Your task to perform on an android device: Open location settings Image 0: 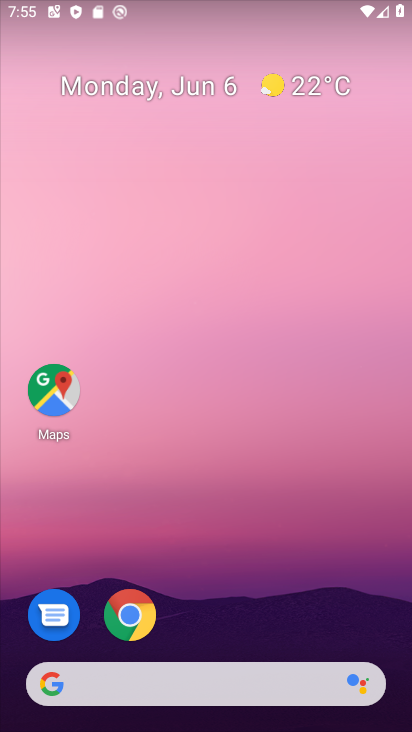
Step 0: drag from (377, 595) to (350, 133)
Your task to perform on an android device: Open location settings Image 1: 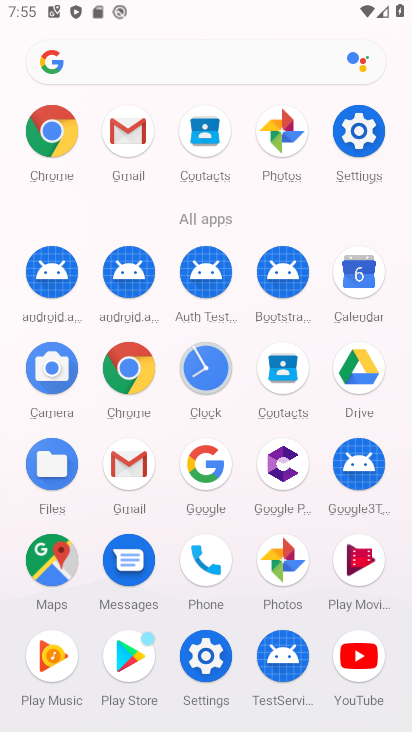
Step 1: click (355, 141)
Your task to perform on an android device: Open location settings Image 2: 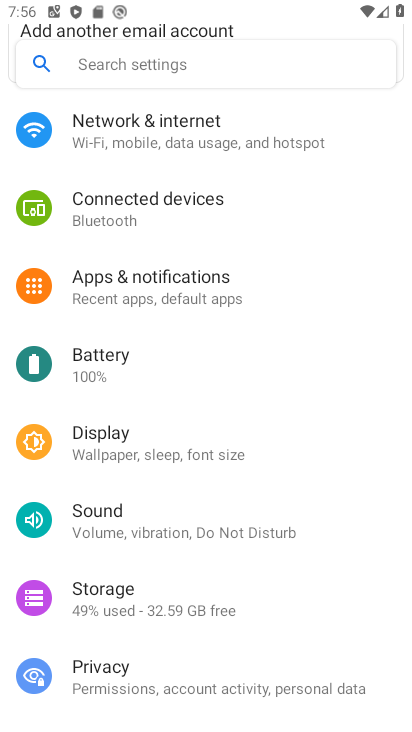
Step 2: drag from (177, 560) to (172, 213)
Your task to perform on an android device: Open location settings Image 3: 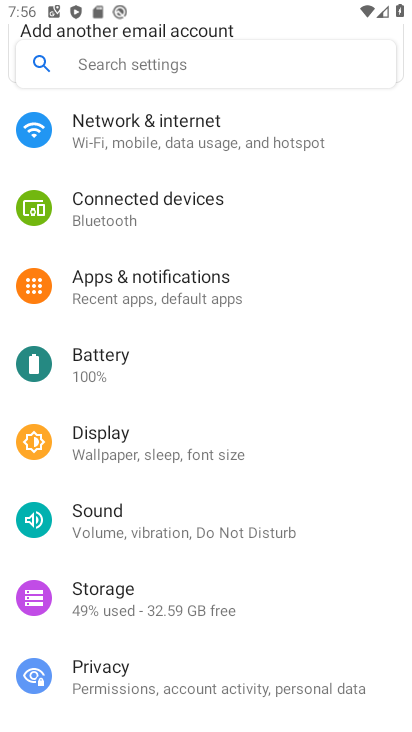
Step 3: drag from (312, 645) to (298, 398)
Your task to perform on an android device: Open location settings Image 4: 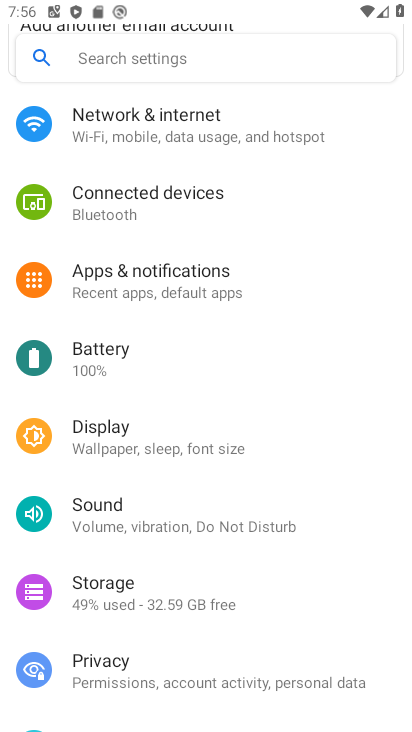
Step 4: drag from (256, 644) to (238, 133)
Your task to perform on an android device: Open location settings Image 5: 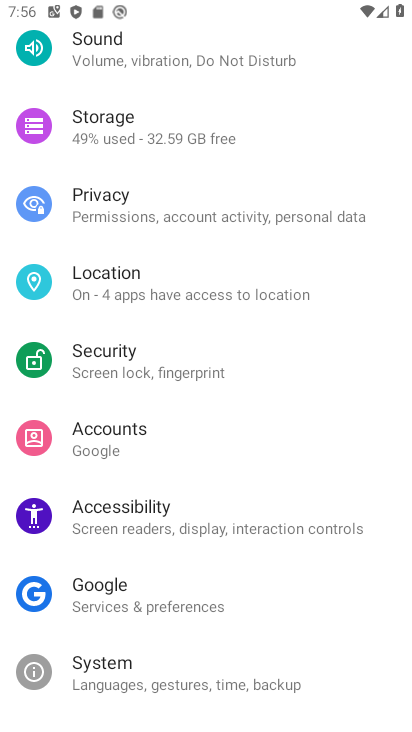
Step 5: click (99, 284)
Your task to perform on an android device: Open location settings Image 6: 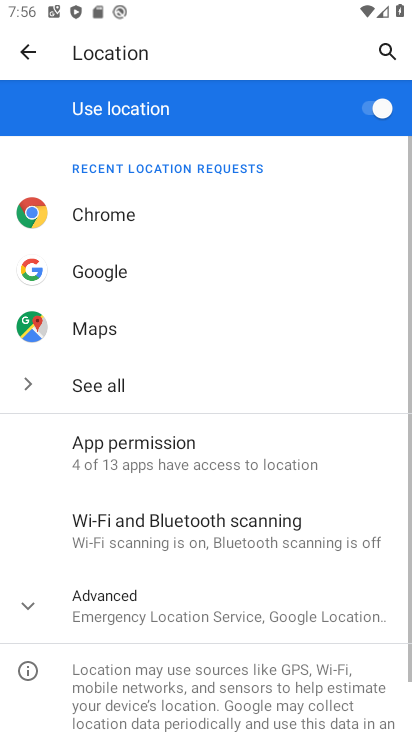
Step 6: click (25, 606)
Your task to perform on an android device: Open location settings Image 7: 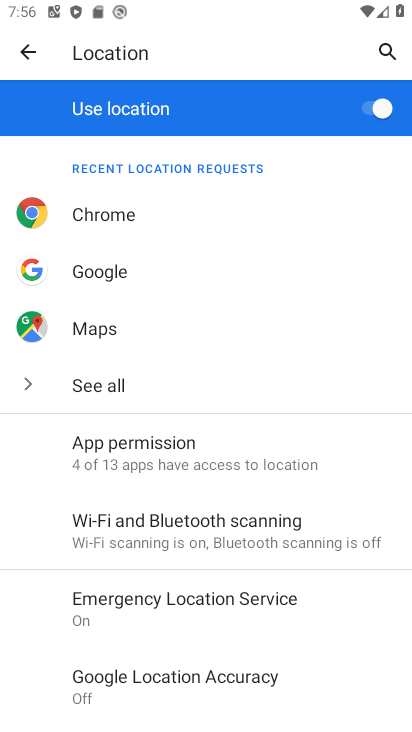
Step 7: task complete